Your task to perform on an android device: Open location settings Image 0: 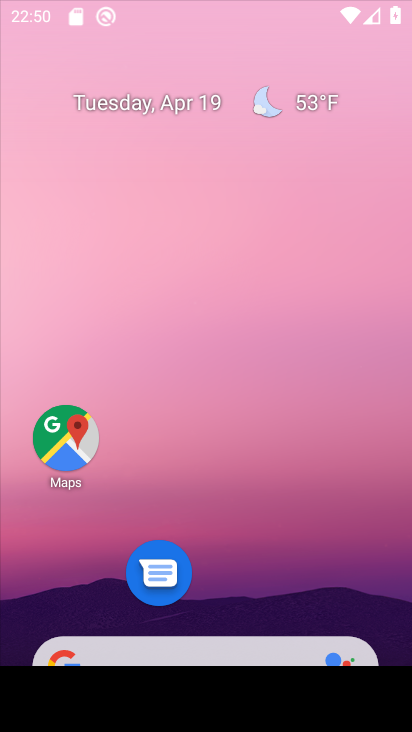
Step 0: drag from (223, 616) to (223, 0)
Your task to perform on an android device: Open location settings Image 1: 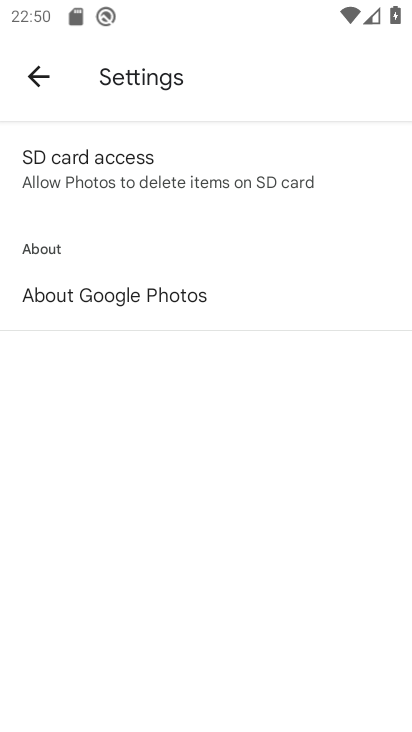
Step 1: press home button
Your task to perform on an android device: Open location settings Image 2: 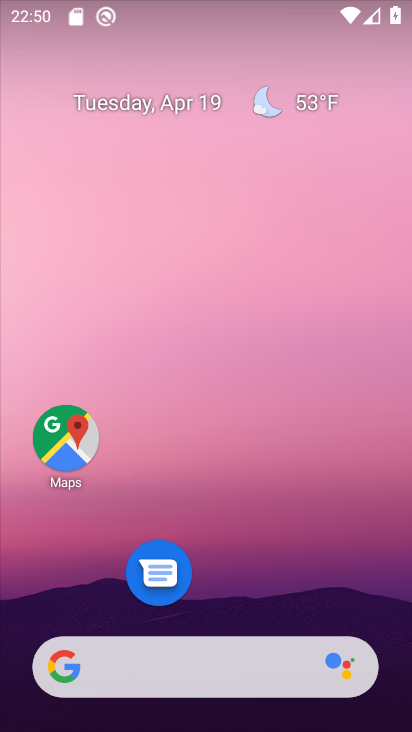
Step 2: drag from (209, 606) to (242, 160)
Your task to perform on an android device: Open location settings Image 3: 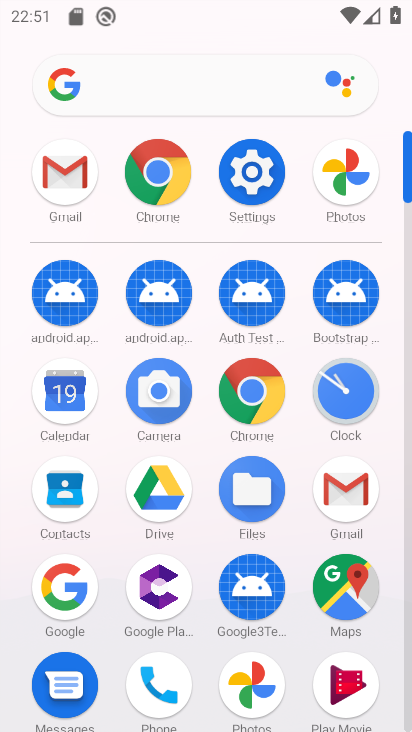
Step 3: click (253, 165)
Your task to perform on an android device: Open location settings Image 4: 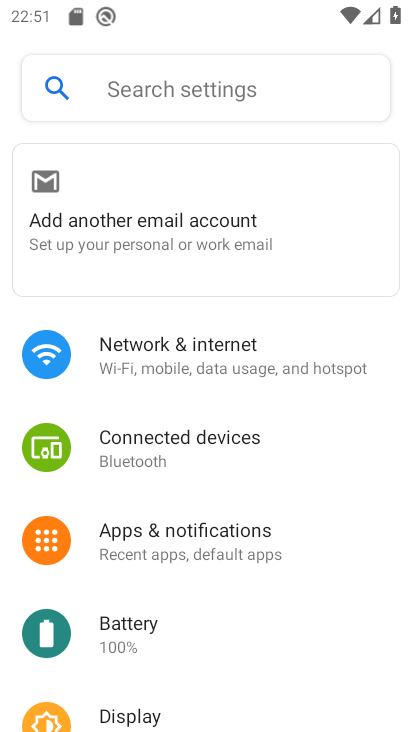
Step 4: drag from (175, 670) to (245, 117)
Your task to perform on an android device: Open location settings Image 5: 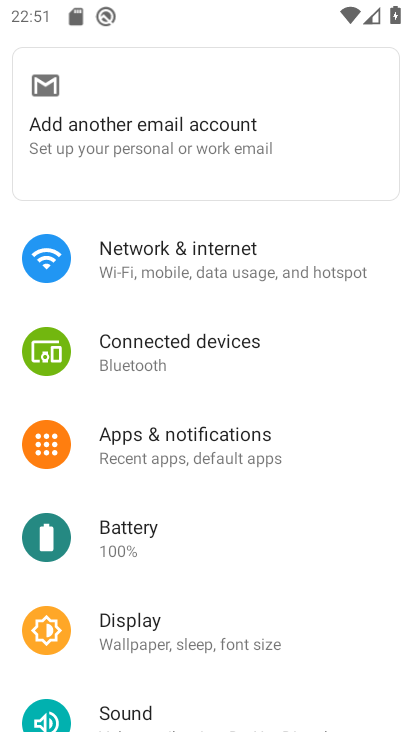
Step 5: drag from (149, 673) to (219, 45)
Your task to perform on an android device: Open location settings Image 6: 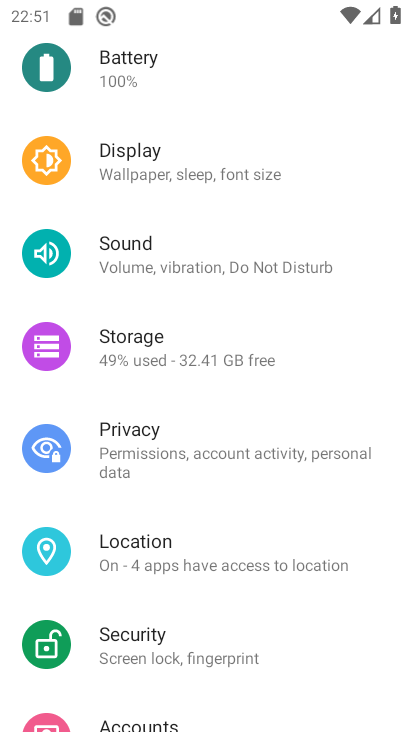
Step 6: click (182, 542)
Your task to perform on an android device: Open location settings Image 7: 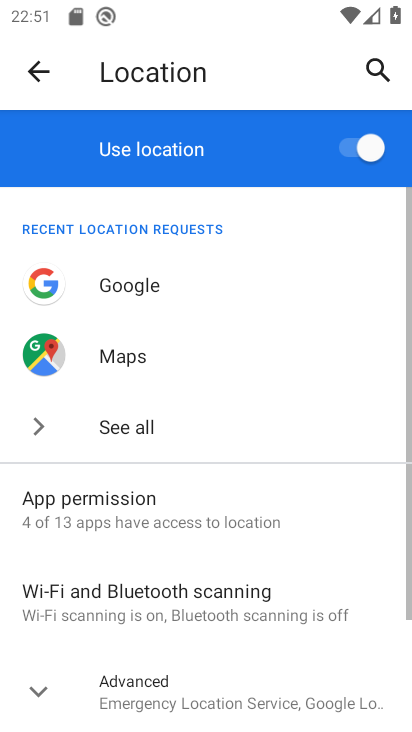
Step 7: drag from (198, 651) to (222, 372)
Your task to perform on an android device: Open location settings Image 8: 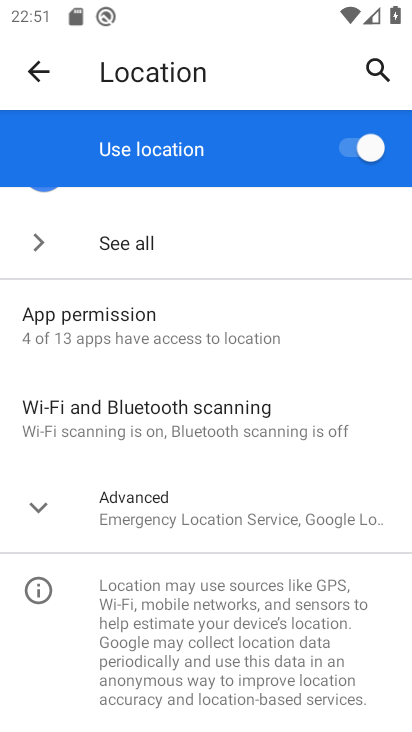
Step 8: click (37, 498)
Your task to perform on an android device: Open location settings Image 9: 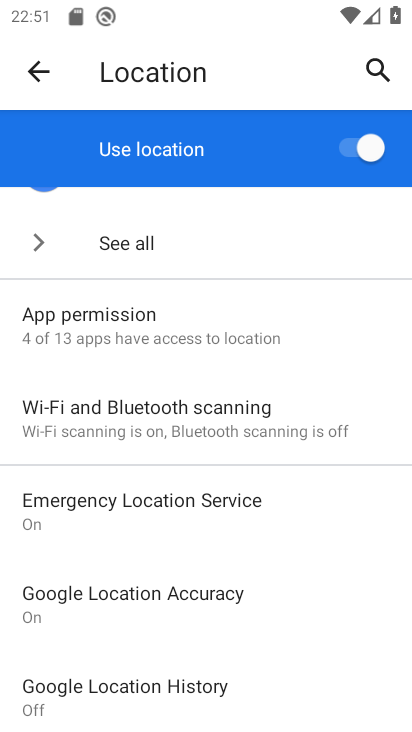
Step 9: task complete